Your task to perform on an android device: Open Chrome and go to settings Image 0: 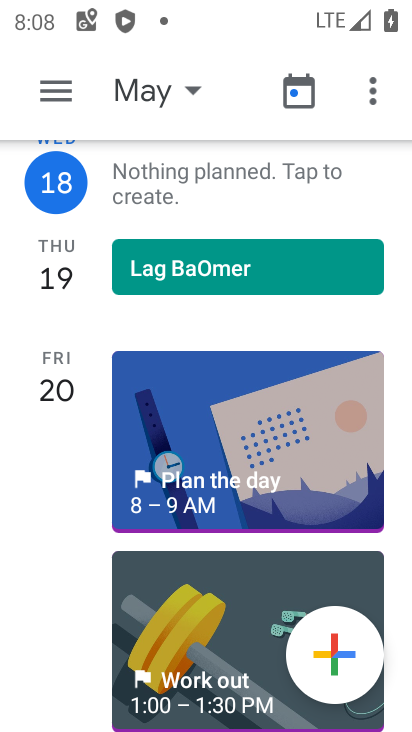
Step 0: press home button
Your task to perform on an android device: Open Chrome and go to settings Image 1: 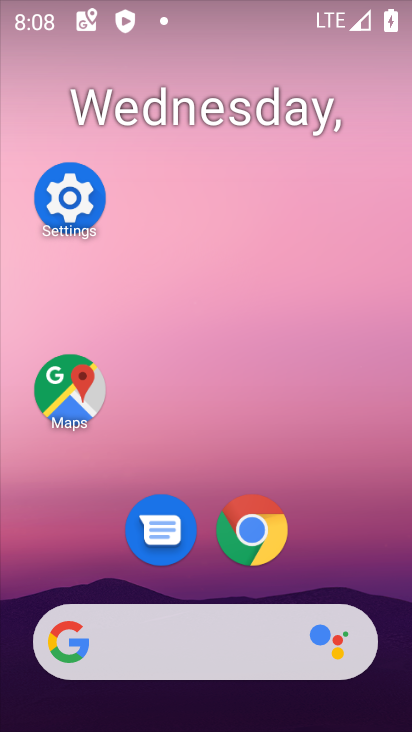
Step 1: click (270, 532)
Your task to perform on an android device: Open Chrome and go to settings Image 2: 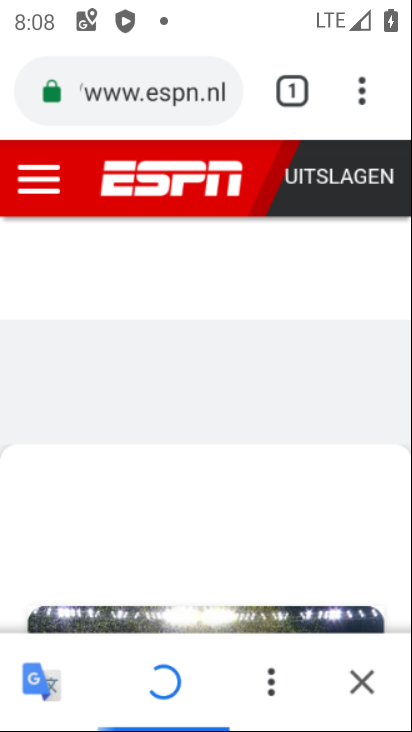
Step 2: click (358, 94)
Your task to perform on an android device: Open Chrome and go to settings Image 3: 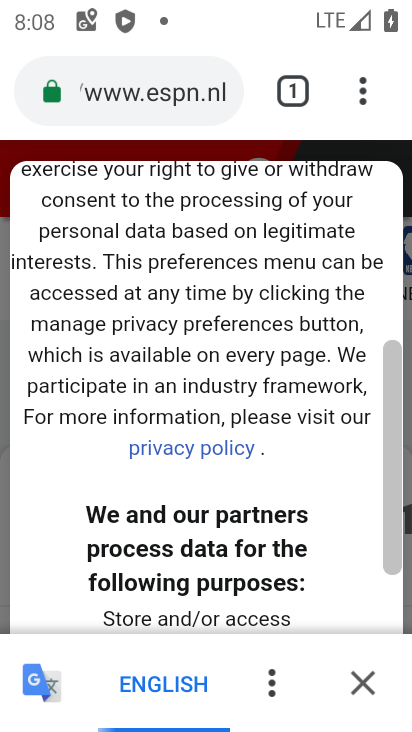
Step 3: click (367, 87)
Your task to perform on an android device: Open Chrome and go to settings Image 4: 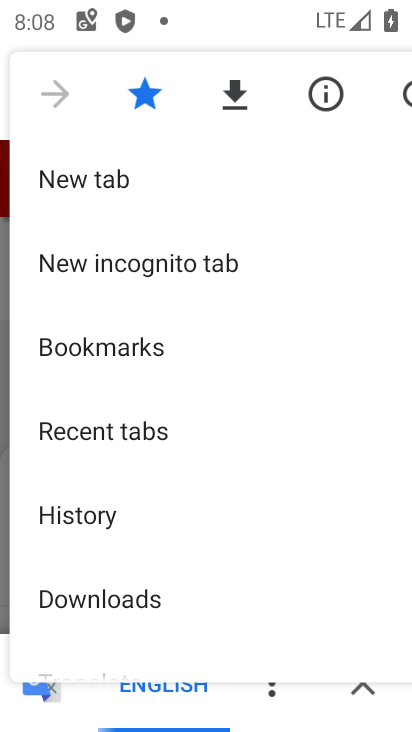
Step 4: drag from (221, 491) to (255, 146)
Your task to perform on an android device: Open Chrome and go to settings Image 5: 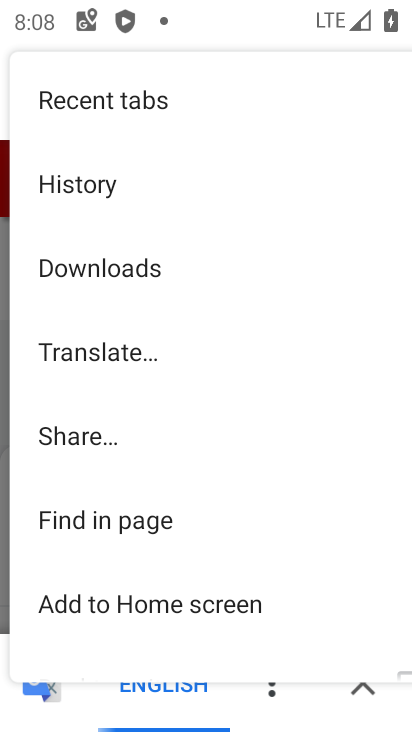
Step 5: drag from (195, 505) to (244, 135)
Your task to perform on an android device: Open Chrome and go to settings Image 6: 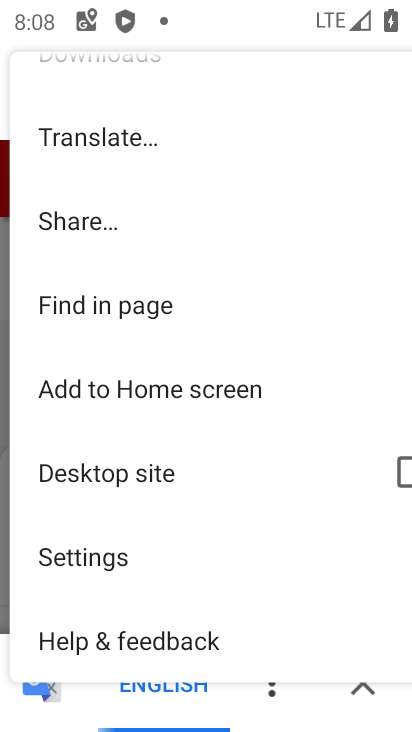
Step 6: click (142, 535)
Your task to perform on an android device: Open Chrome and go to settings Image 7: 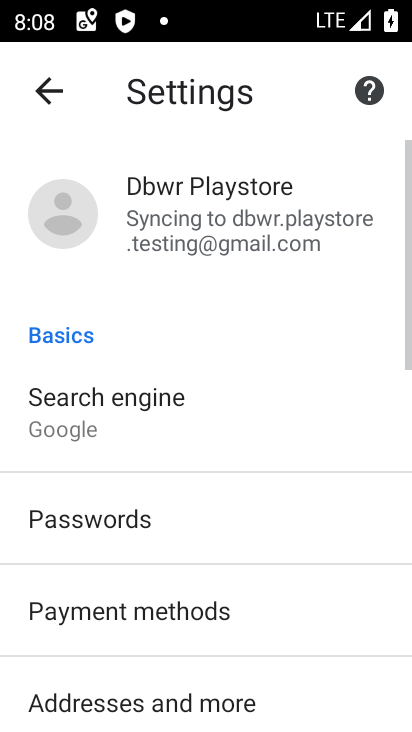
Step 7: task complete